Your task to perform on an android device: turn on showing notifications on the lock screen Image 0: 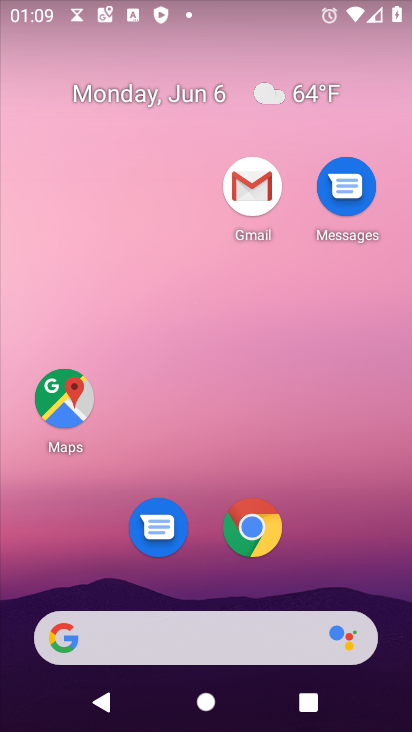
Step 0: drag from (355, 520) to (298, 118)
Your task to perform on an android device: turn on showing notifications on the lock screen Image 1: 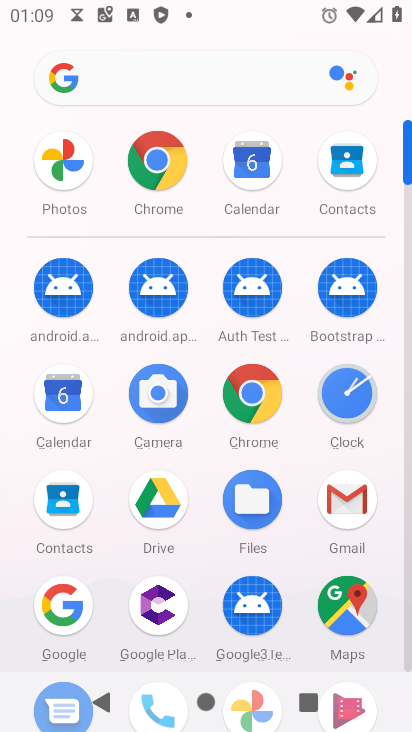
Step 1: drag from (185, 609) to (212, 208)
Your task to perform on an android device: turn on showing notifications on the lock screen Image 2: 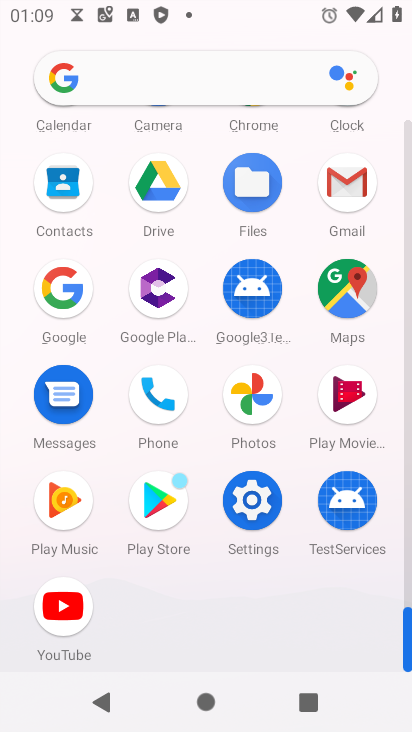
Step 2: click (255, 486)
Your task to perform on an android device: turn on showing notifications on the lock screen Image 3: 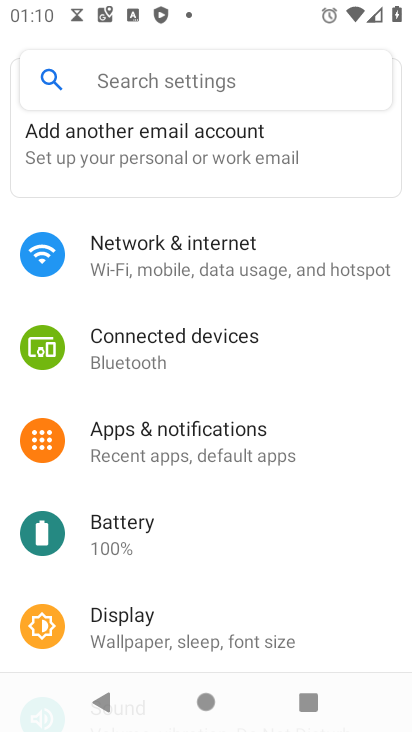
Step 3: click (181, 421)
Your task to perform on an android device: turn on showing notifications on the lock screen Image 4: 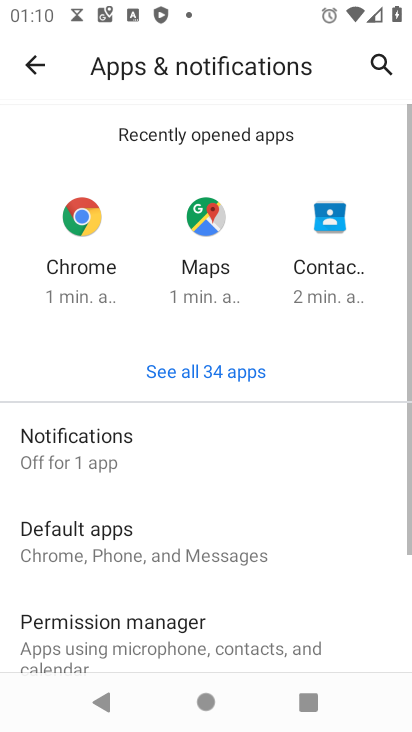
Step 4: click (167, 433)
Your task to perform on an android device: turn on showing notifications on the lock screen Image 5: 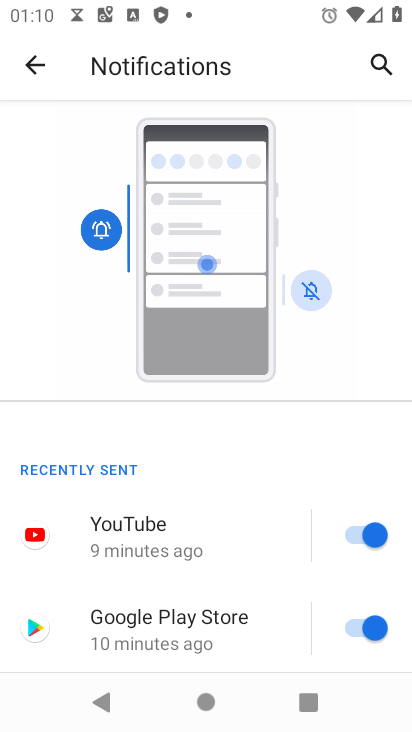
Step 5: drag from (158, 369) to (172, 158)
Your task to perform on an android device: turn on showing notifications on the lock screen Image 6: 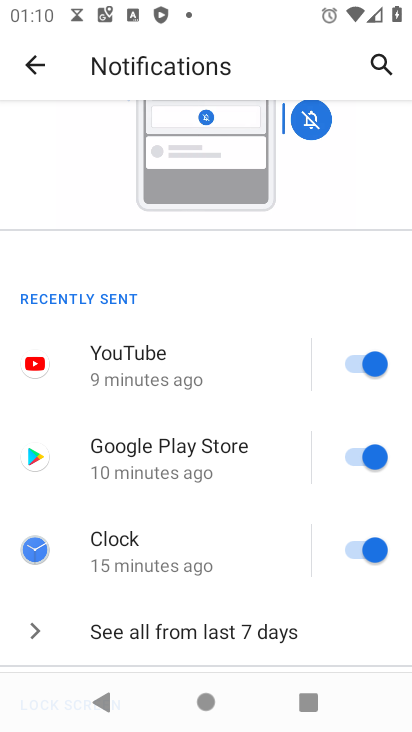
Step 6: drag from (222, 572) to (274, 139)
Your task to perform on an android device: turn on showing notifications on the lock screen Image 7: 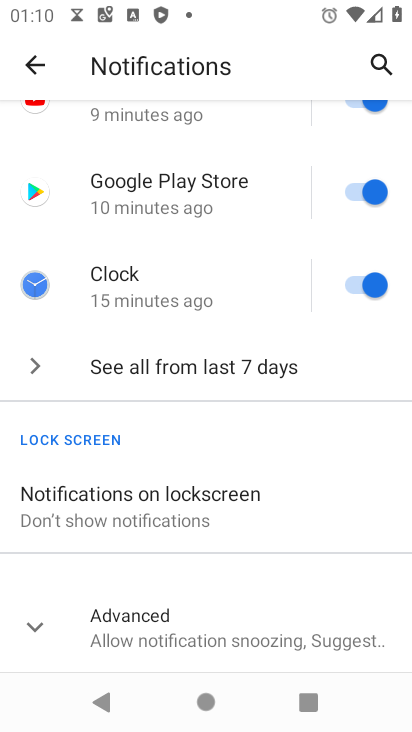
Step 7: click (173, 501)
Your task to perform on an android device: turn on showing notifications on the lock screen Image 8: 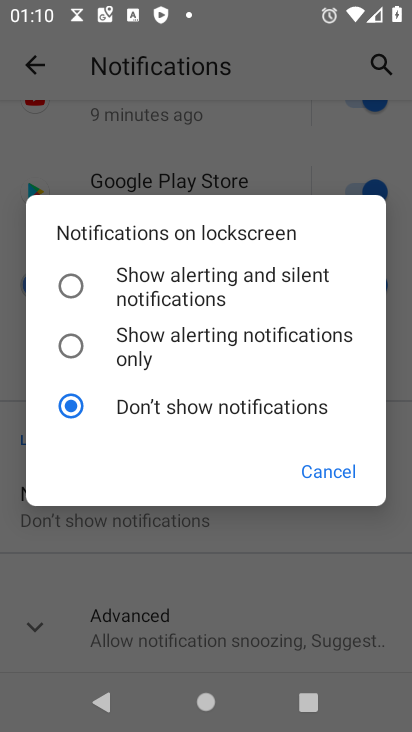
Step 8: click (153, 289)
Your task to perform on an android device: turn on showing notifications on the lock screen Image 9: 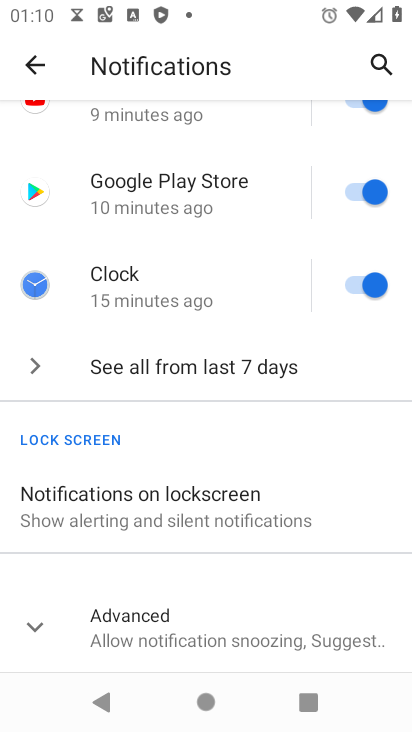
Step 9: task complete